Your task to perform on an android device: Go to Google Image 0: 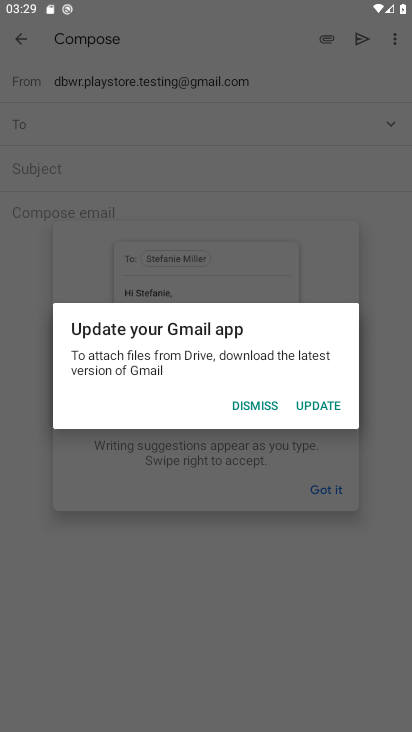
Step 0: press home button
Your task to perform on an android device: Go to Google Image 1: 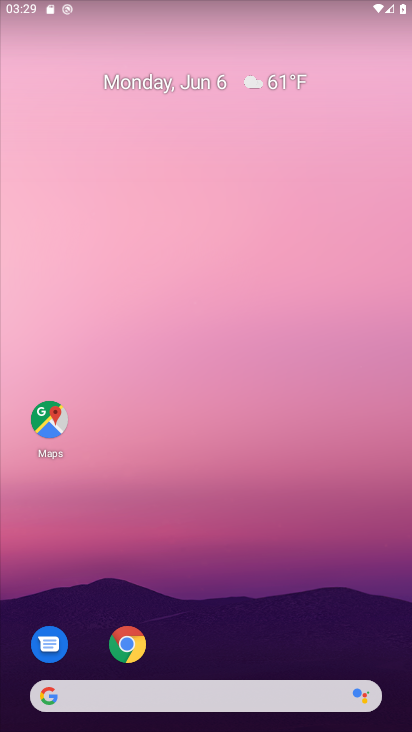
Step 1: click (144, 690)
Your task to perform on an android device: Go to Google Image 2: 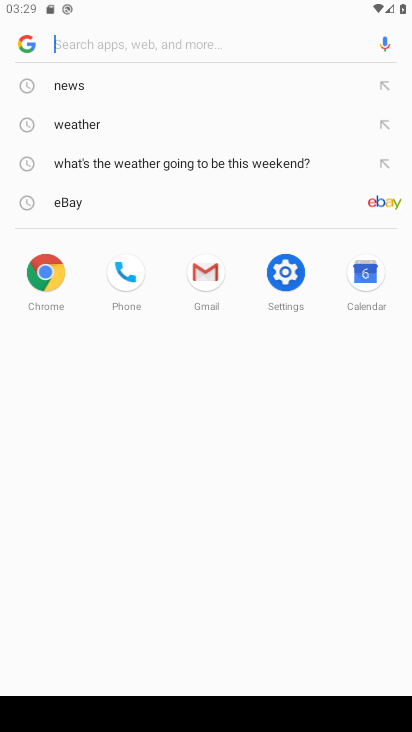
Step 2: click (31, 37)
Your task to perform on an android device: Go to Google Image 3: 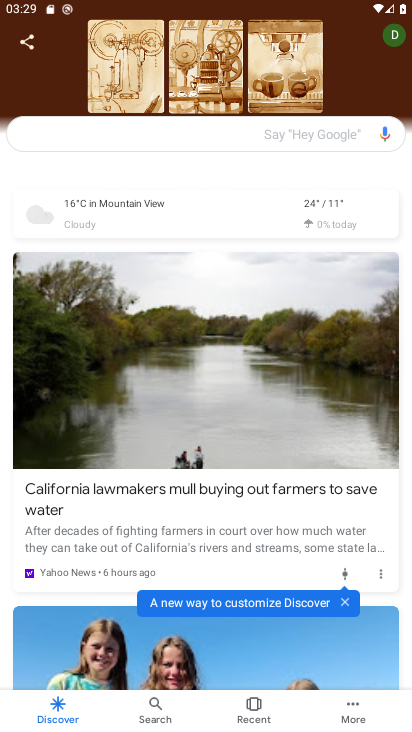
Step 3: task complete